Your task to perform on an android device: delete location history Image 0: 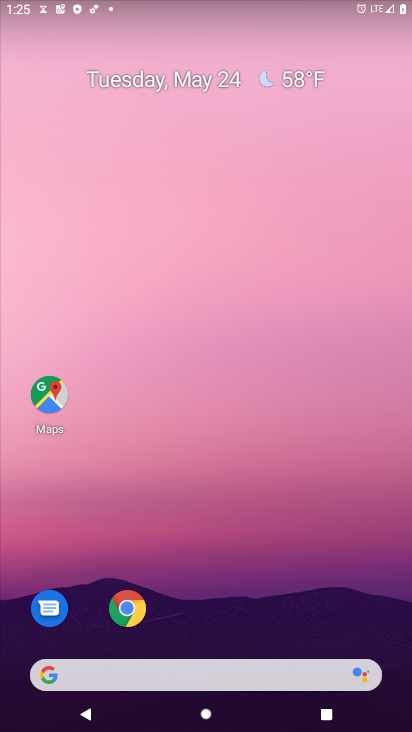
Step 0: press home button
Your task to perform on an android device: delete location history Image 1: 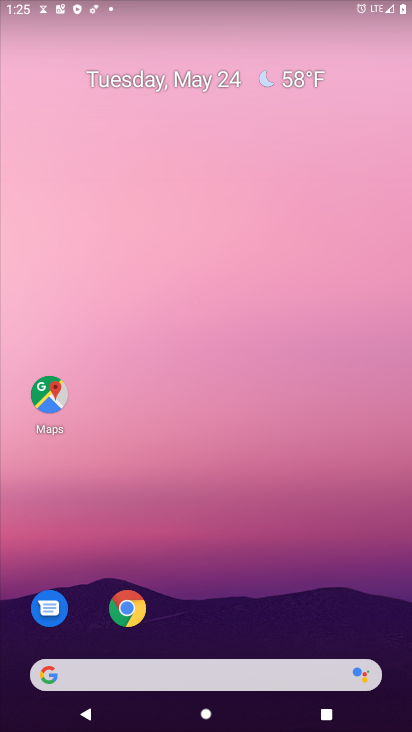
Step 1: drag from (274, 681) to (151, 157)
Your task to perform on an android device: delete location history Image 2: 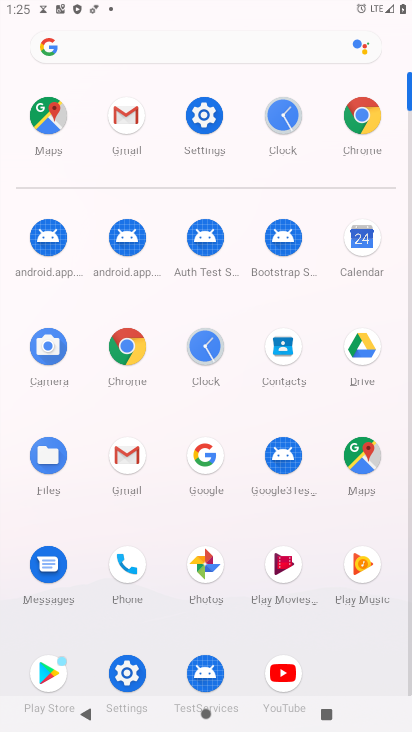
Step 2: click (207, 114)
Your task to perform on an android device: delete location history Image 3: 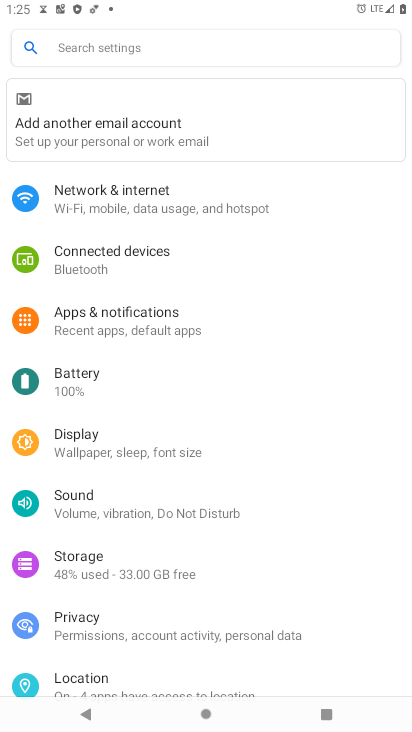
Step 3: click (157, 47)
Your task to perform on an android device: delete location history Image 4: 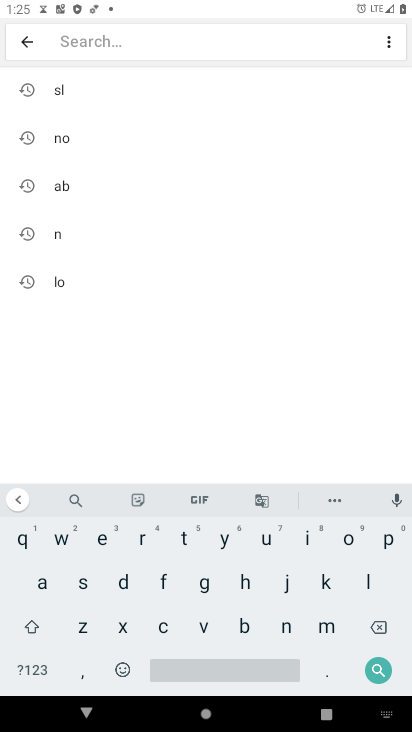
Step 4: click (78, 279)
Your task to perform on an android device: delete location history Image 5: 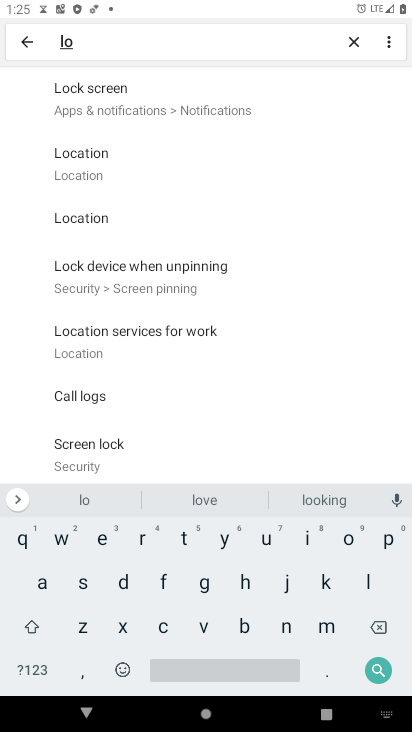
Step 5: click (126, 175)
Your task to perform on an android device: delete location history Image 6: 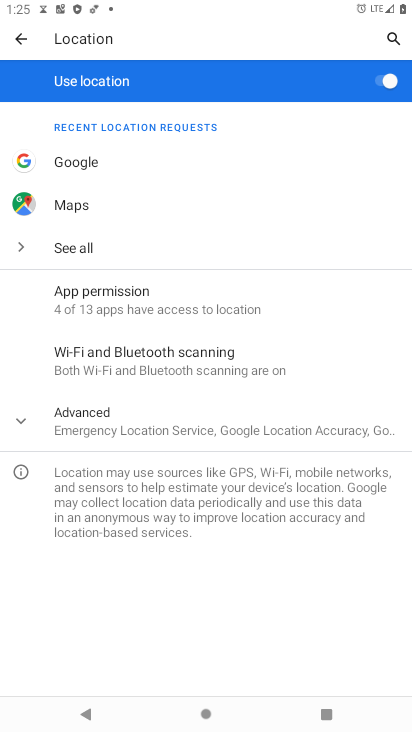
Step 6: click (75, 435)
Your task to perform on an android device: delete location history Image 7: 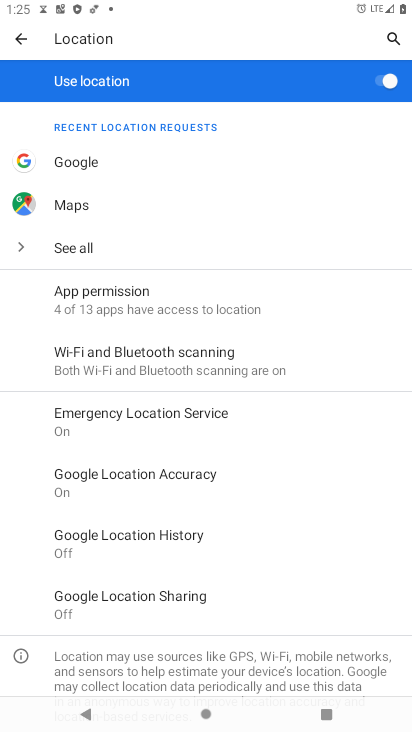
Step 7: click (178, 524)
Your task to perform on an android device: delete location history Image 8: 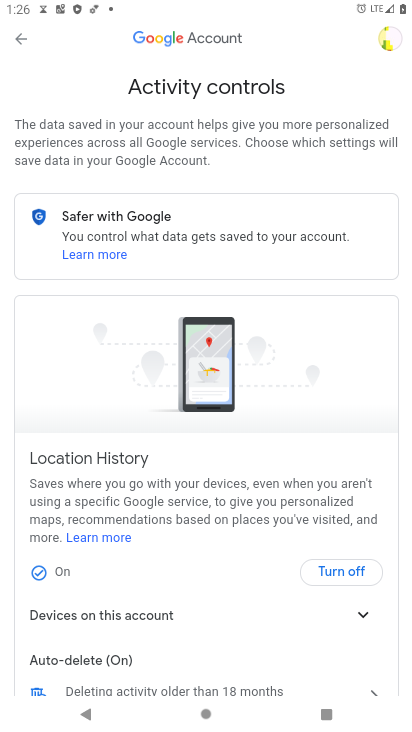
Step 8: click (160, 659)
Your task to perform on an android device: delete location history Image 9: 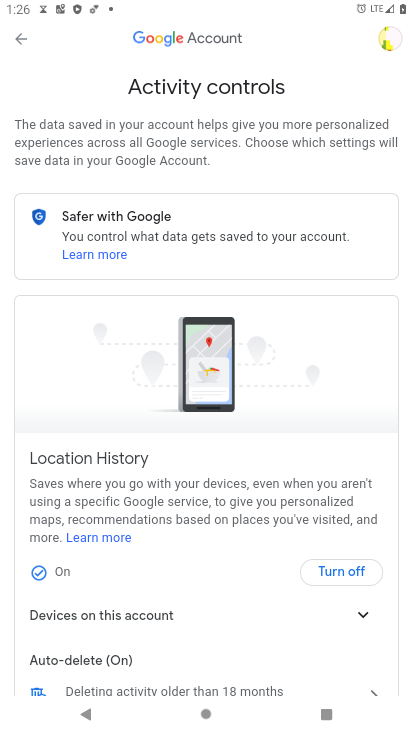
Step 9: click (103, 651)
Your task to perform on an android device: delete location history Image 10: 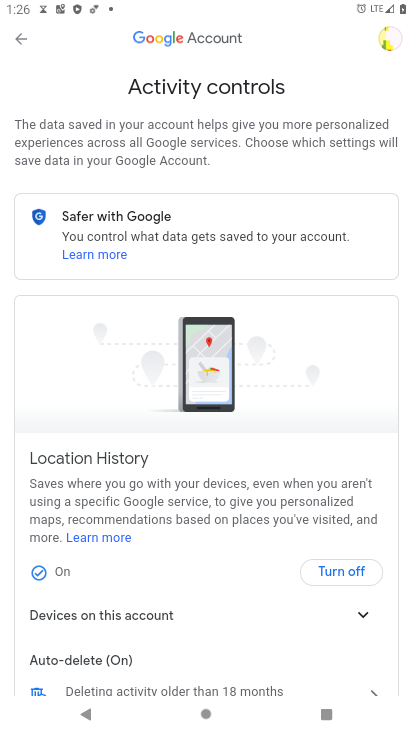
Step 10: task complete